Your task to perform on an android device: When is my next appointment? Image 0: 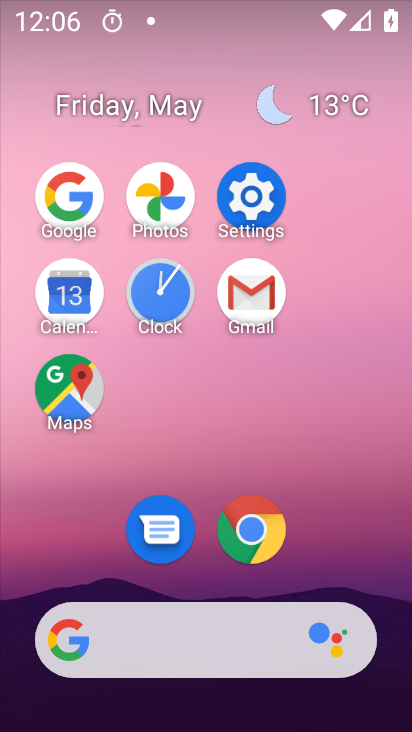
Step 0: click (264, 183)
Your task to perform on an android device: When is my next appointment? Image 1: 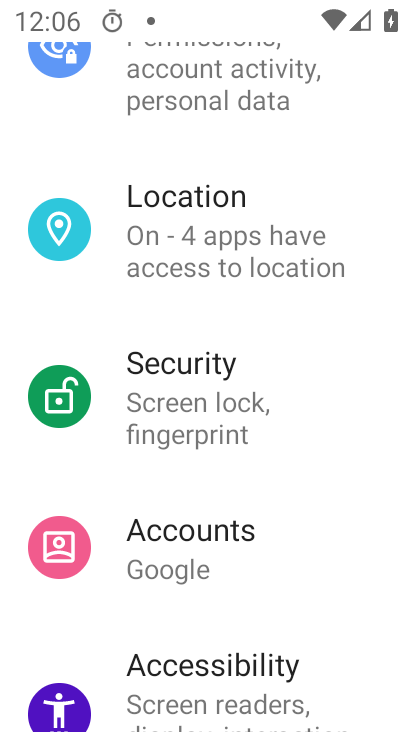
Step 1: drag from (325, 175) to (277, 731)
Your task to perform on an android device: When is my next appointment? Image 2: 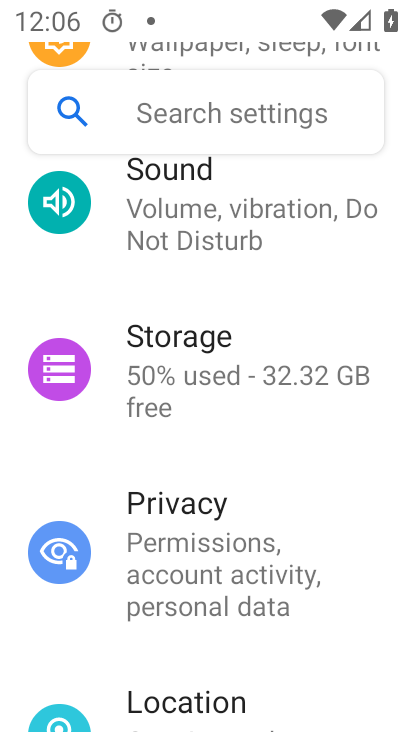
Step 2: drag from (308, 286) to (311, 677)
Your task to perform on an android device: When is my next appointment? Image 3: 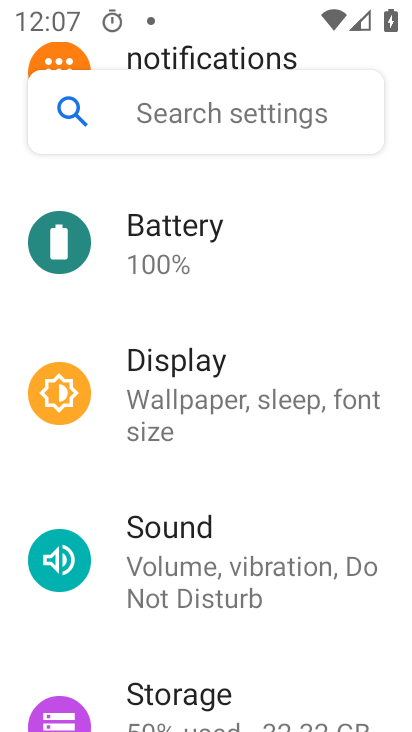
Step 3: click (274, 245)
Your task to perform on an android device: When is my next appointment? Image 4: 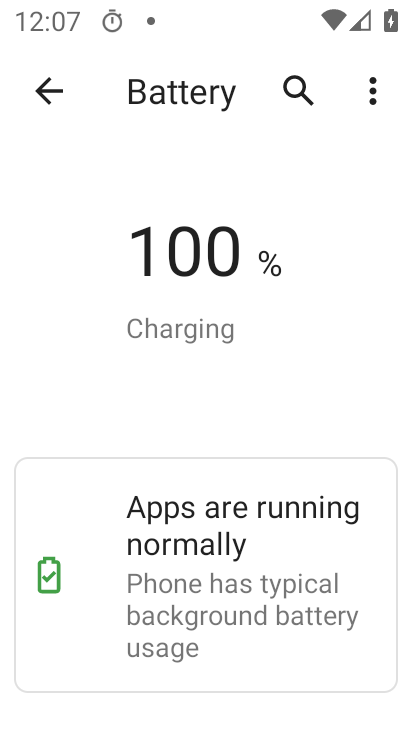
Step 4: task complete